Your task to perform on an android device: Open Chrome and go to settings Image 0: 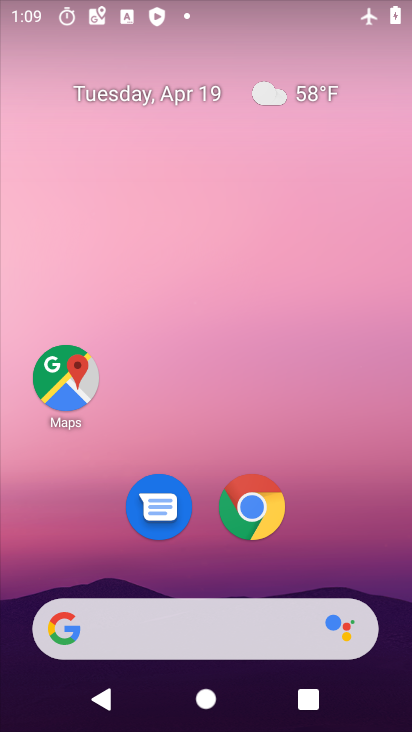
Step 0: click (261, 516)
Your task to perform on an android device: Open Chrome and go to settings Image 1: 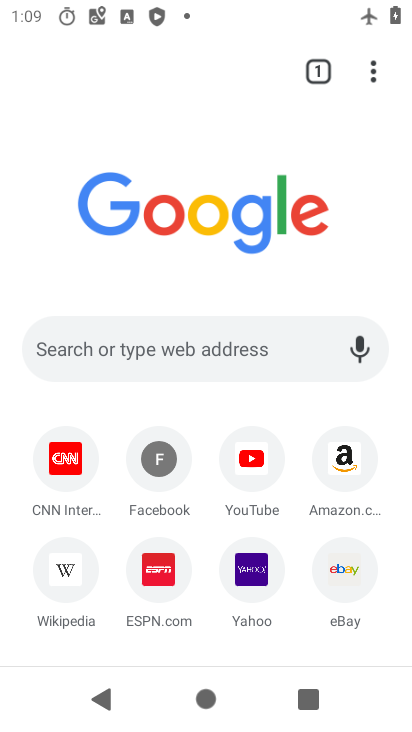
Step 1: click (371, 74)
Your task to perform on an android device: Open Chrome and go to settings Image 2: 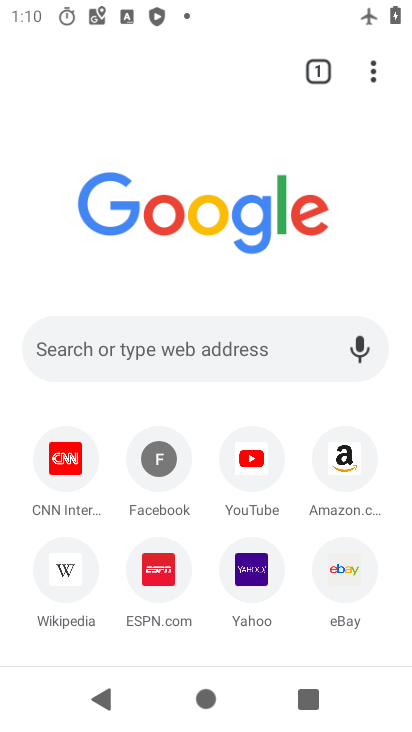
Step 2: click (370, 72)
Your task to perform on an android device: Open Chrome and go to settings Image 3: 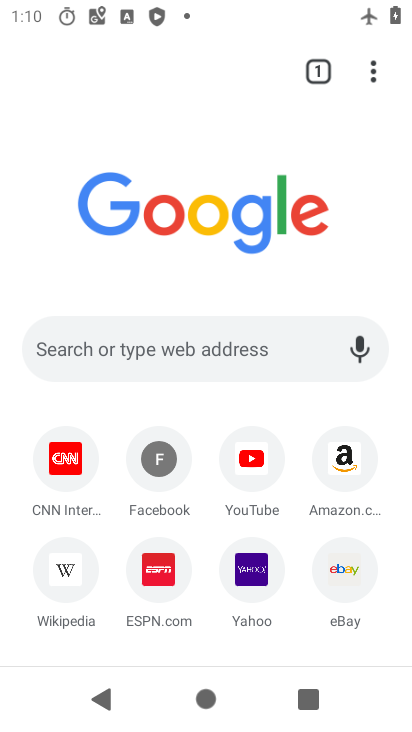
Step 3: click (369, 72)
Your task to perform on an android device: Open Chrome and go to settings Image 4: 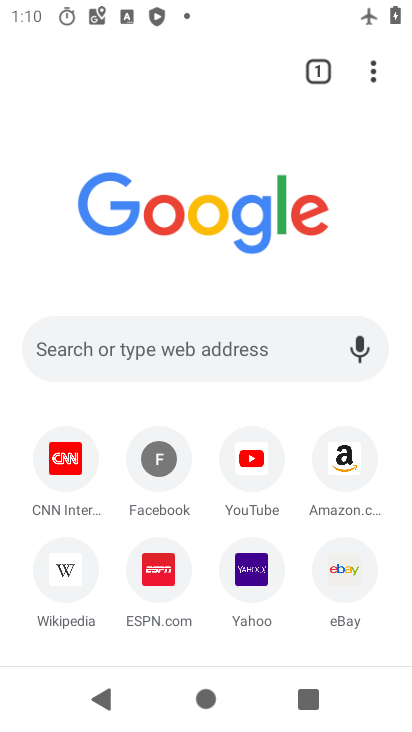
Step 4: click (370, 68)
Your task to perform on an android device: Open Chrome and go to settings Image 5: 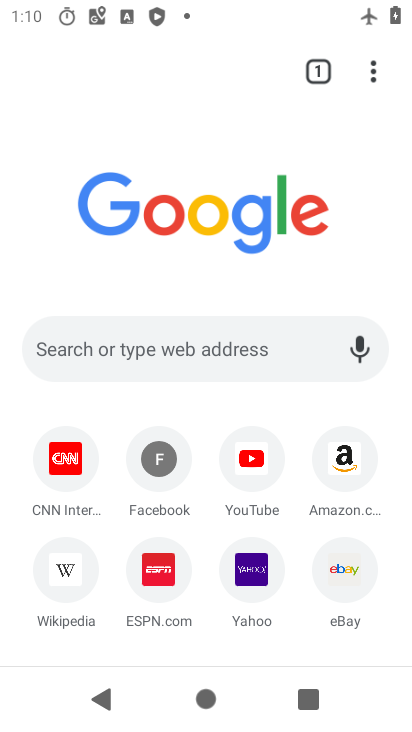
Step 5: click (370, 68)
Your task to perform on an android device: Open Chrome and go to settings Image 6: 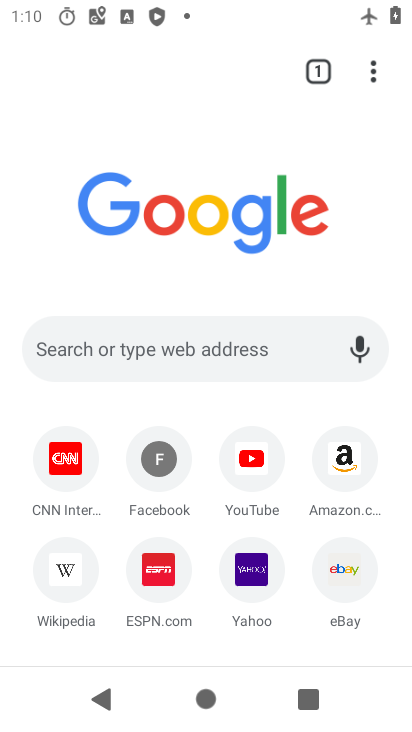
Step 6: click (370, 68)
Your task to perform on an android device: Open Chrome and go to settings Image 7: 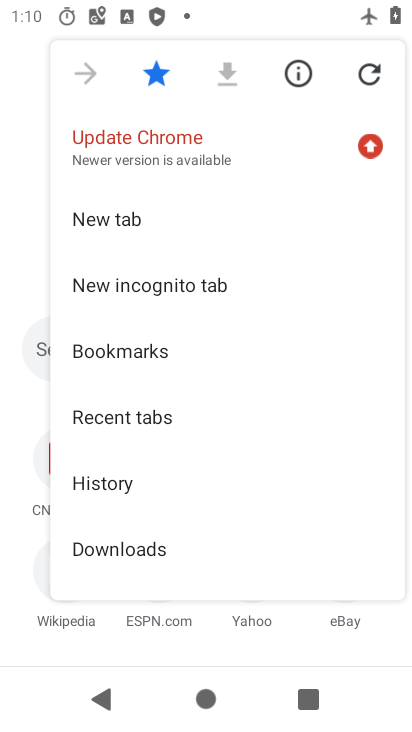
Step 7: drag from (217, 529) to (201, 176)
Your task to perform on an android device: Open Chrome and go to settings Image 8: 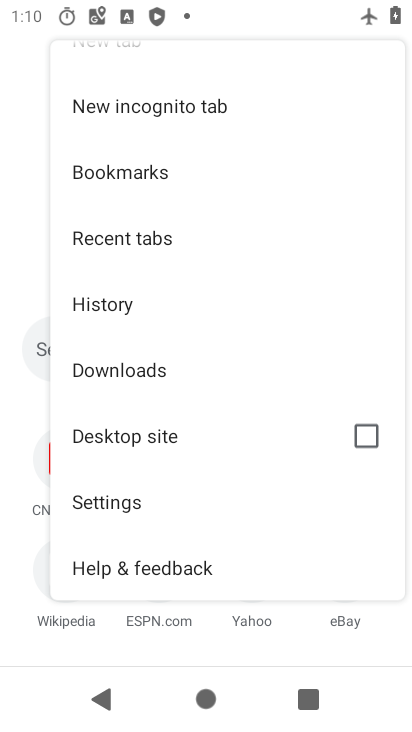
Step 8: click (170, 491)
Your task to perform on an android device: Open Chrome and go to settings Image 9: 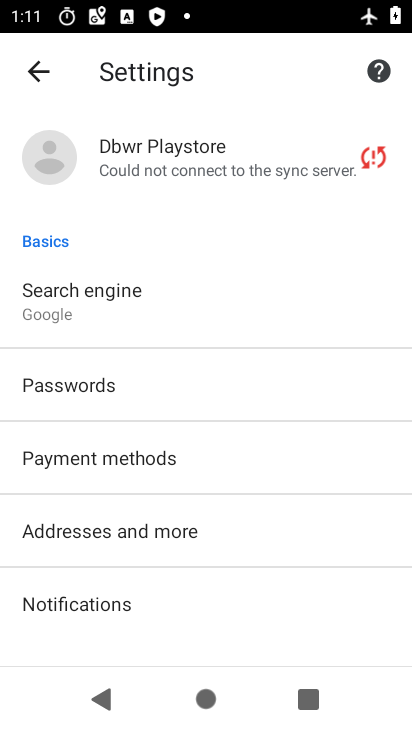
Step 9: task complete